Your task to perform on an android device: Open Chrome and go to settings Image 0: 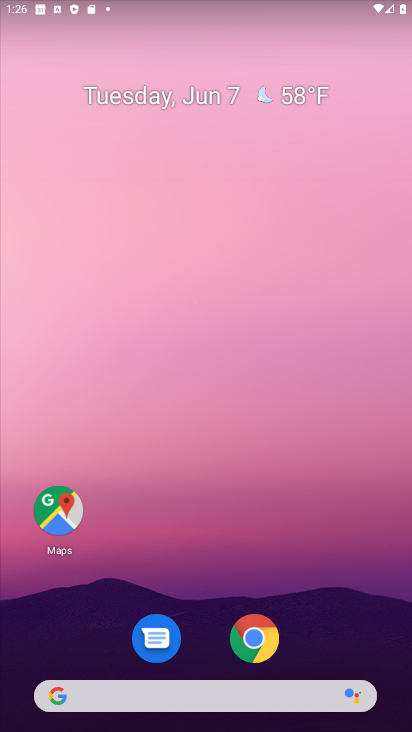
Step 0: drag from (194, 627) to (310, 123)
Your task to perform on an android device: Open Chrome and go to settings Image 1: 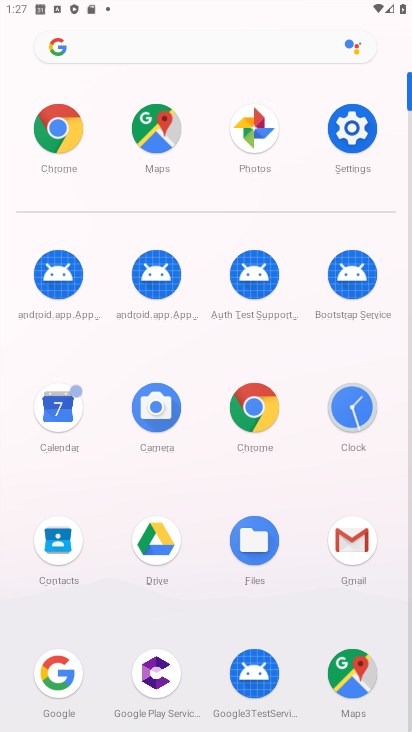
Step 1: click (251, 410)
Your task to perform on an android device: Open Chrome and go to settings Image 2: 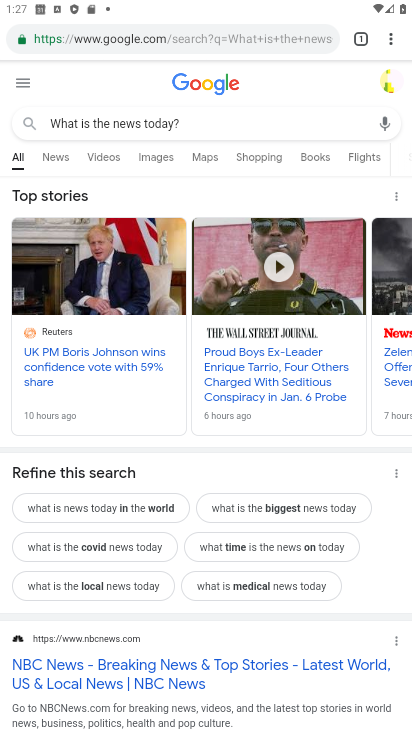
Step 2: click (394, 36)
Your task to perform on an android device: Open Chrome and go to settings Image 3: 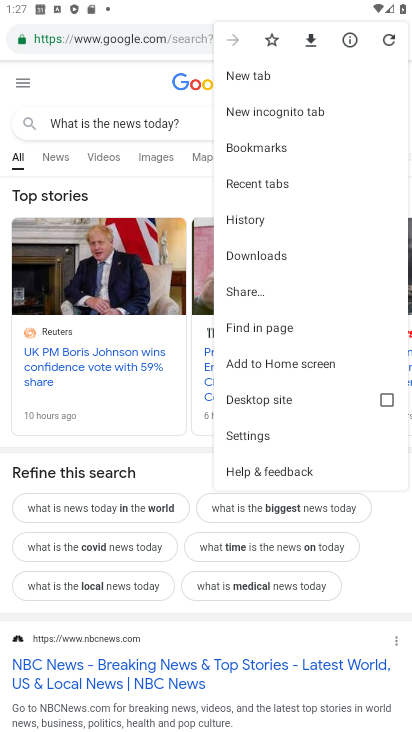
Step 3: click (264, 442)
Your task to perform on an android device: Open Chrome and go to settings Image 4: 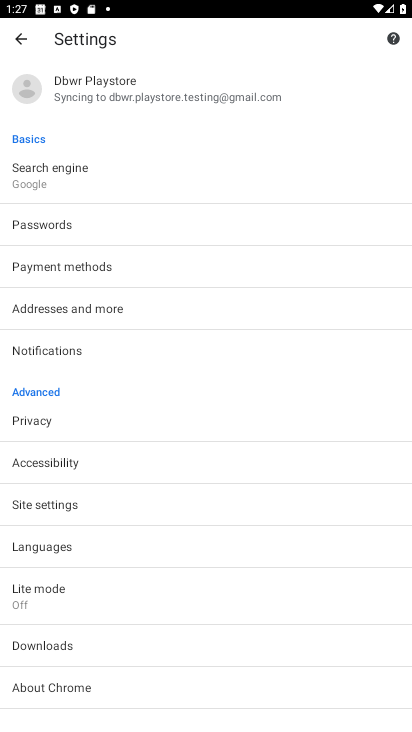
Step 4: task complete